Your task to perform on an android device: Open Reddit.com Image 0: 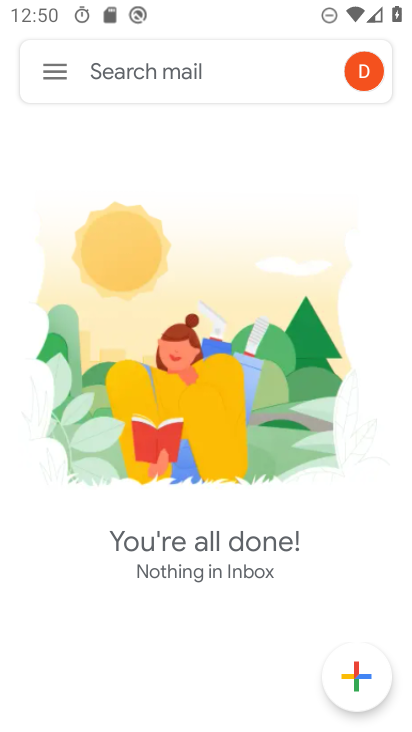
Step 0: press home button
Your task to perform on an android device: Open Reddit.com Image 1: 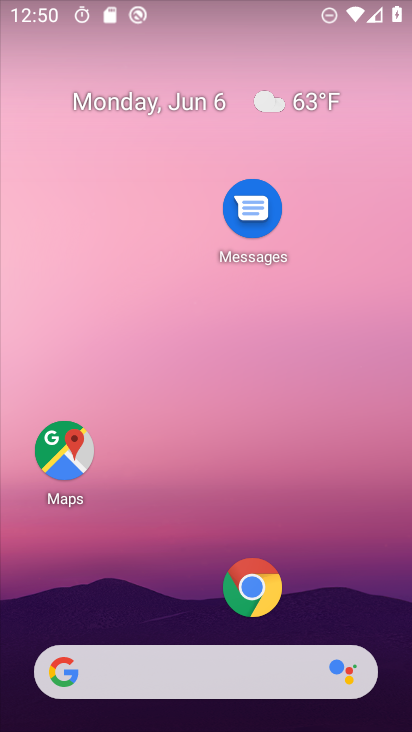
Step 1: click (250, 585)
Your task to perform on an android device: Open Reddit.com Image 2: 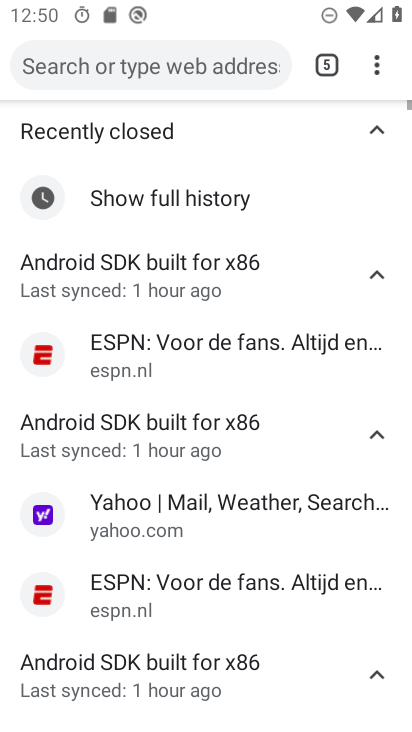
Step 2: click (111, 72)
Your task to perform on an android device: Open Reddit.com Image 3: 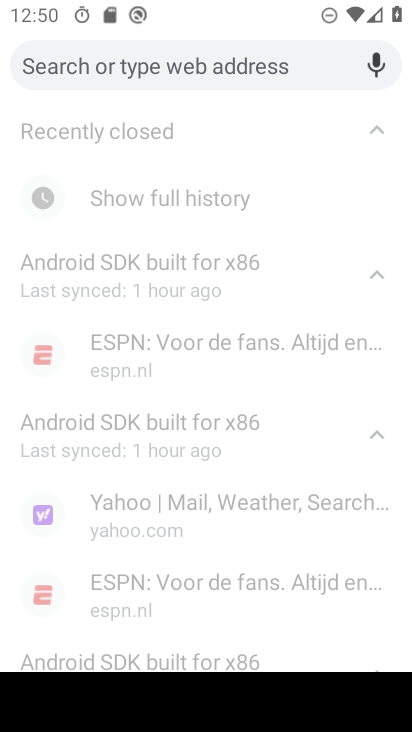
Step 3: type "reddit"
Your task to perform on an android device: Open Reddit.com Image 4: 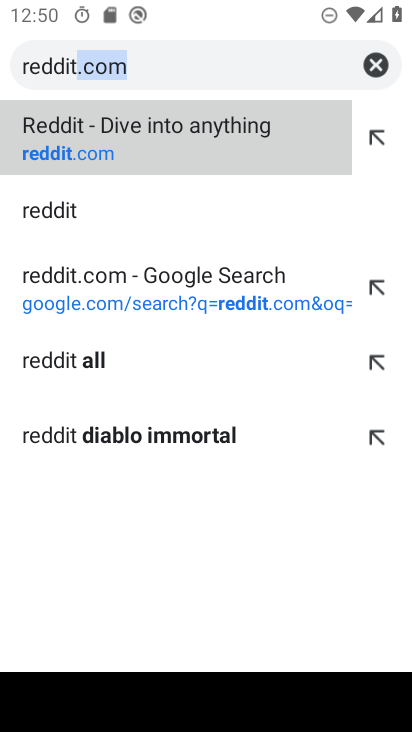
Step 4: click (131, 161)
Your task to perform on an android device: Open Reddit.com Image 5: 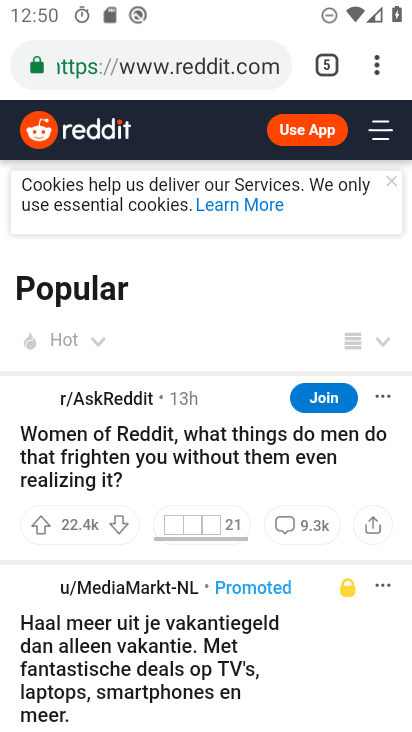
Step 5: task complete